Your task to perform on an android device: Go to location settings Image 0: 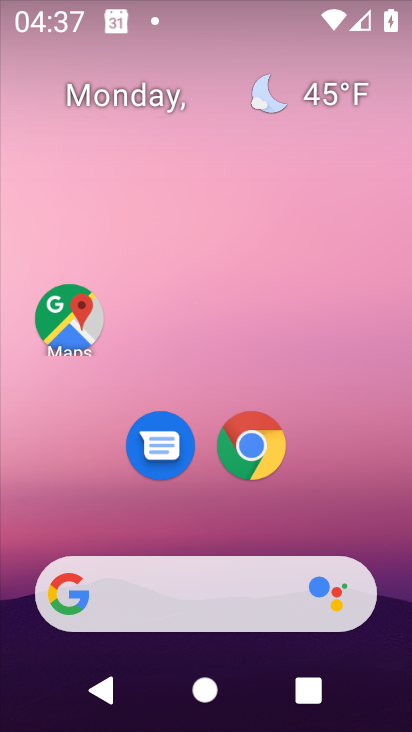
Step 0: drag from (312, 516) to (290, 17)
Your task to perform on an android device: Go to location settings Image 1: 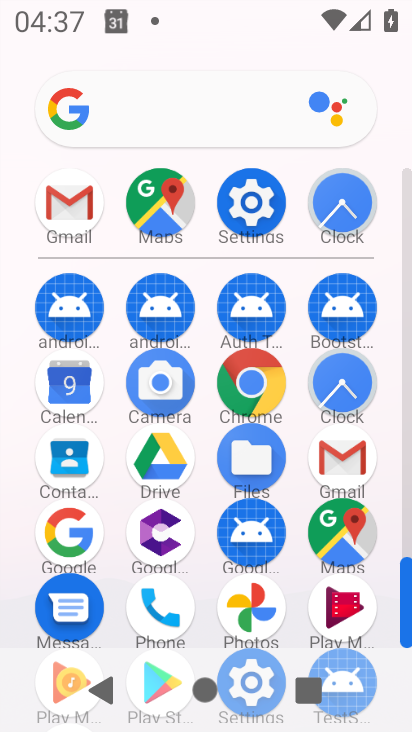
Step 1: click (277, 200)
Your task to perform on an android device: Go to location settings Image 2: 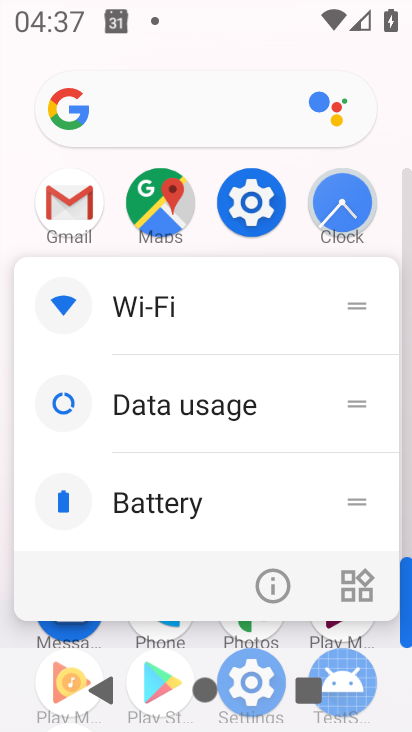
Step 2: click (249, 201)
Your task to perform on an android device: Go to location settings Image 3: 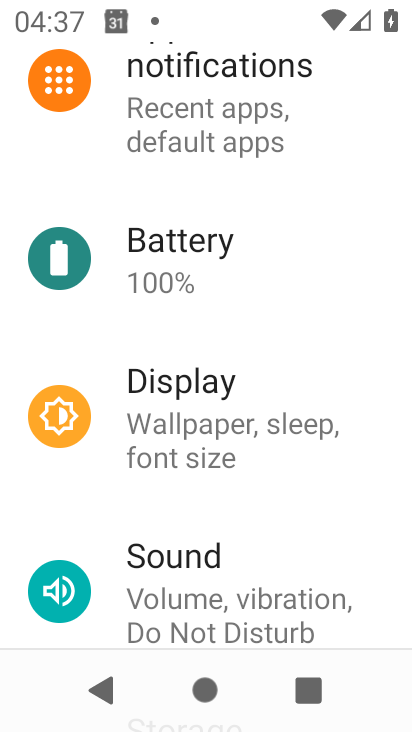
Step 3: drag from (198, 524) to (209, 191)
Your task to perform on an android device: Go to location settings Image 4: 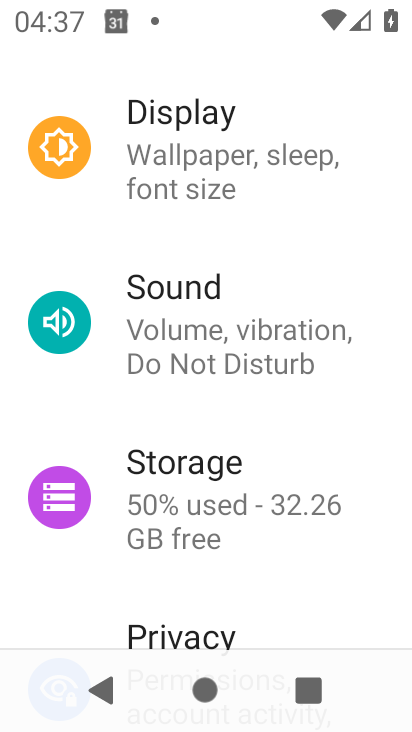
Step 4: drag from (250, 508) to (249, 120)
Your task to perform on an android device: Go to location settings Image 5: 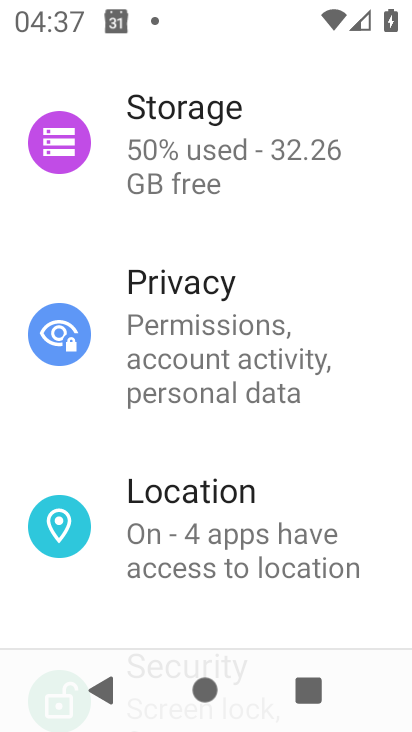
Step 5: click (263, 518)
Your task to perform on an android device: Go to location settings Image 6: 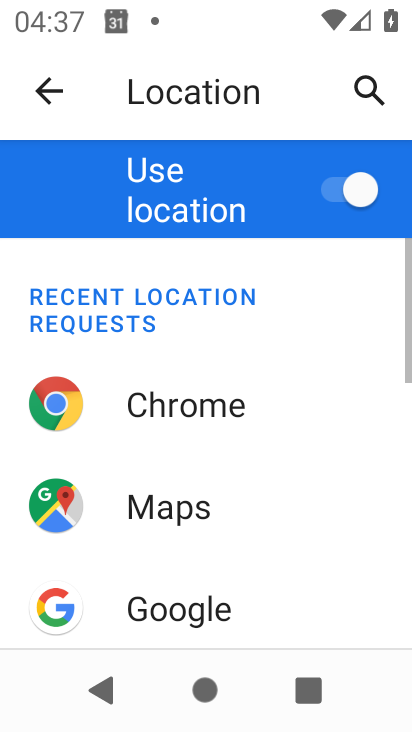
Step 6: task complete